Your task to perform on an android device: Open location settings Image 0: 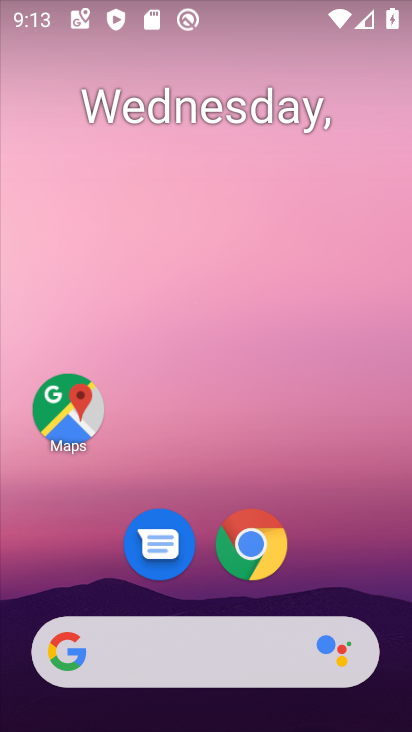
Step 0: drag from (207, 614) to (202, 185)
Your task to perform on an android device: Open location settings Image 1: 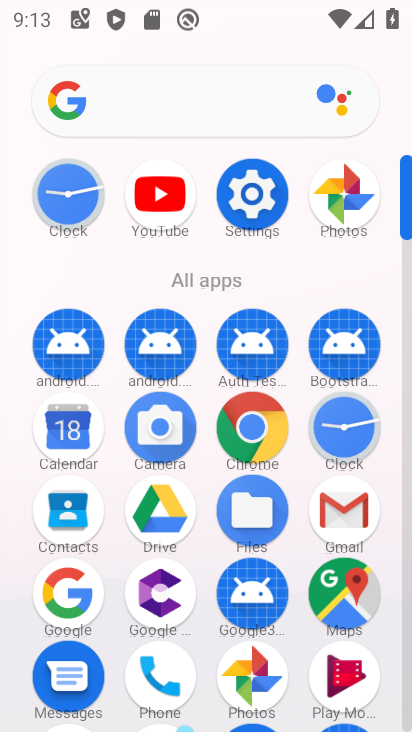
Step 1: click (244, 199)
Your task to perform on an android device: Open location settings Image 2: 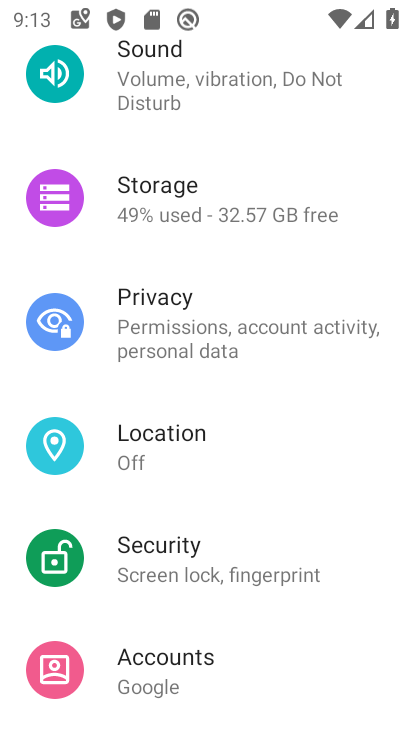
Step 2: click (159, 468)
Your task to perform on an android device: Open location settings Image 3: 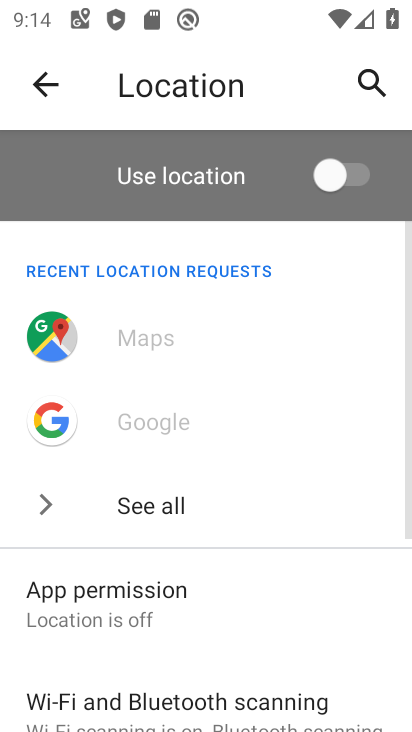
Step 3: task complete